Your task to perform on an android device: turn on javascript in the chrome app Image 0: 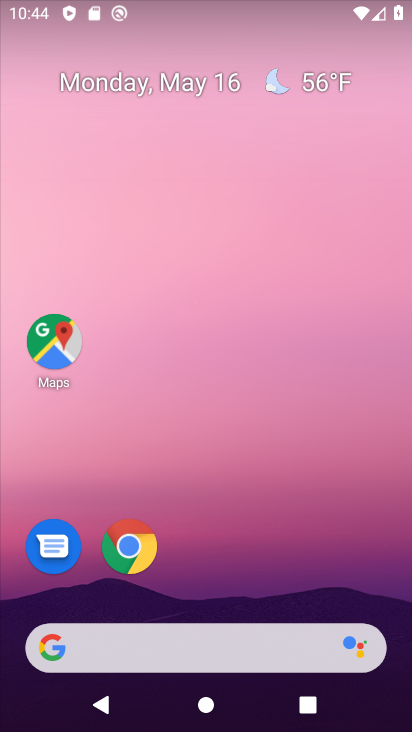
Step 0: drag from (312, 498) to (289, 13)
Your task to perform on an android device: turn on javascript in the chrome app Image 1: 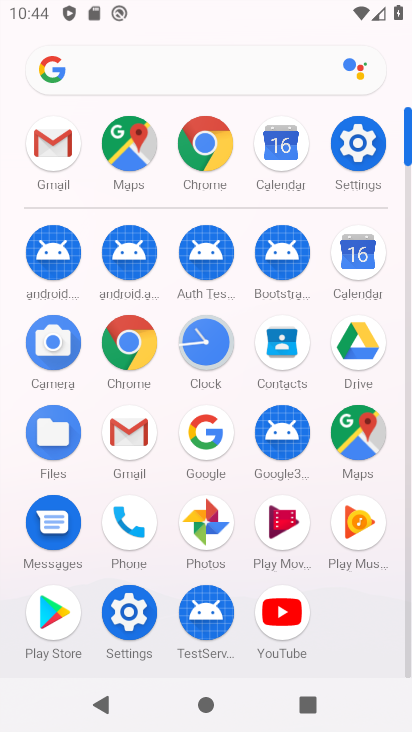
Step 1: click (214, 137)
Your task to perform on an android device: turn on javascript in the chrome app Image 2: 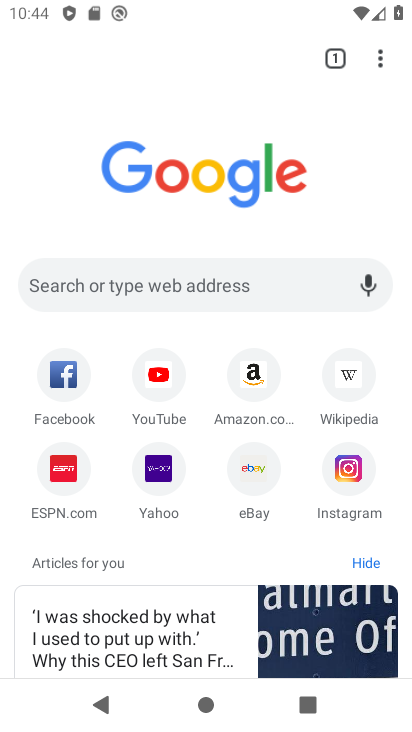
Step 2: drag from (387, 64) to (202, 487)
Your task to perform on an android device: turn on javascript in the chrome app Image 3: 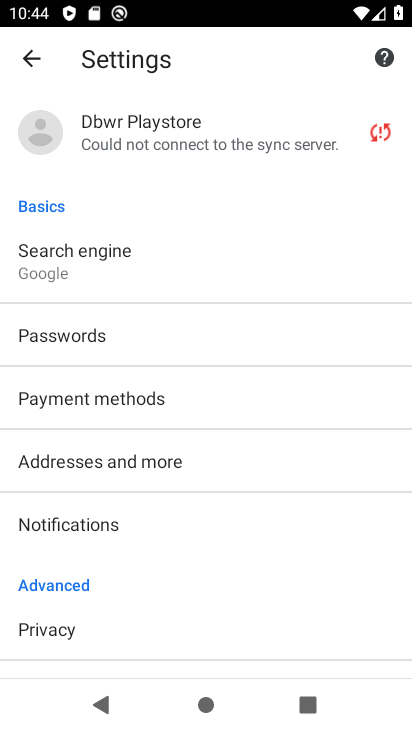
Step 3: drag from (152, 566) to (85, 162)
Your task to perform on an android device: turn on javascript in the chrome app Image 4: 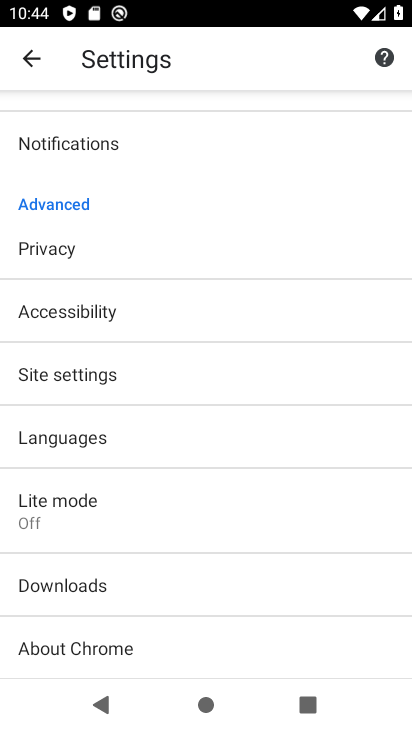
Step 4: click (62, 386)
Your task to perform on an android device: turn on javascript in the chrome app Image 5: 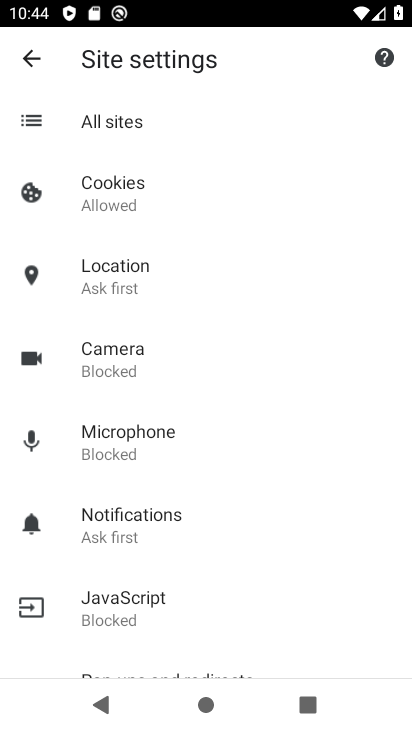
Step 5: click (126, 618)
Your task to perform on an android device: turn on javascript in the chrome app Image 6: 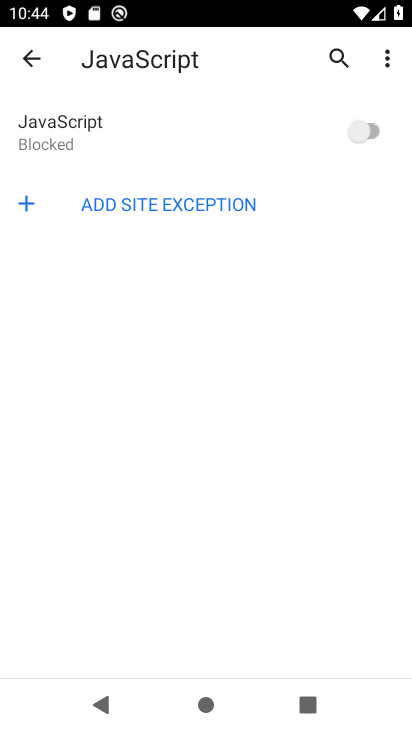
Step 6: click (369, 132)
Your task to perform on an android device: turn on javascript in the chrome app Image 7: 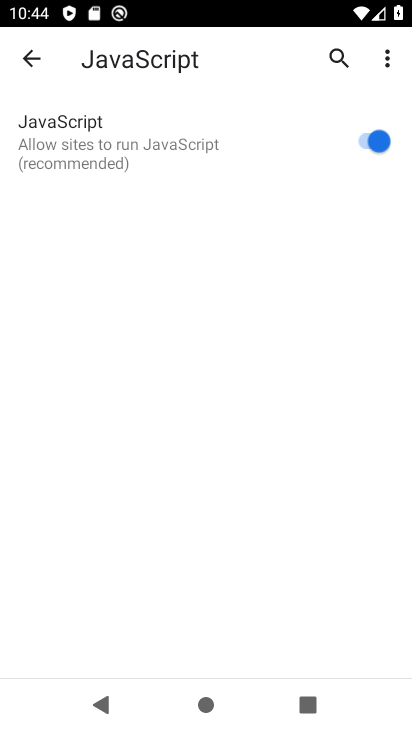
Step 7: task complete